Your task to perform on an android device: show emergency info Image 0: 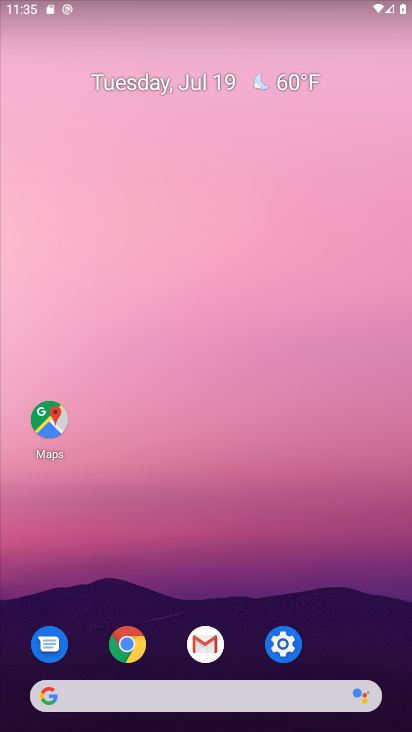
Step 0: click (274, 640)
Your task to perform on an android device: show emergency info Image 1: 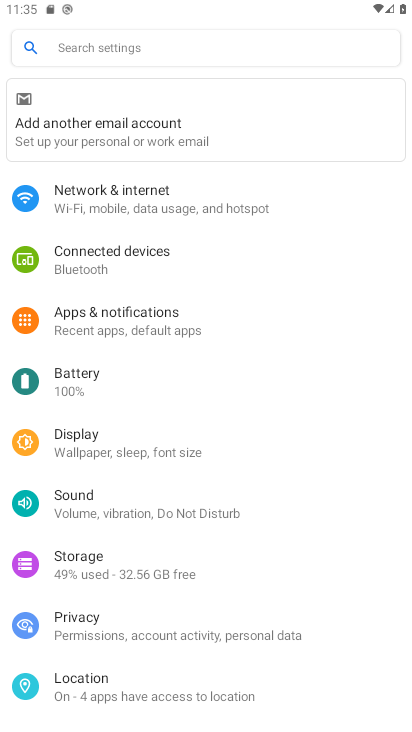
Step 1: click (66, 45)
Your task to perform on an android device: show emergency info Image 2: 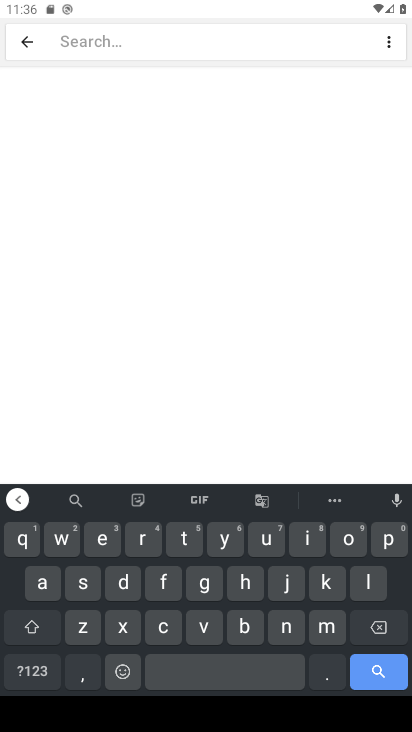
Step 2: click (100, 541)
Your task to perform on an android device: show emergency info Image 3: 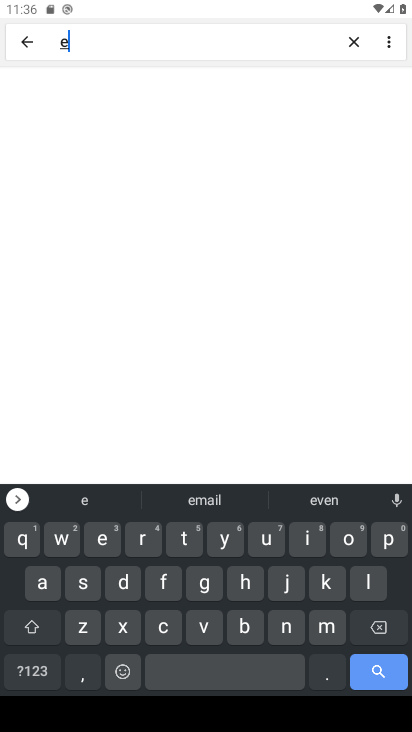
Step 3: click (323, 626)
Your task to perform on an android device: show emergency info Image 4: 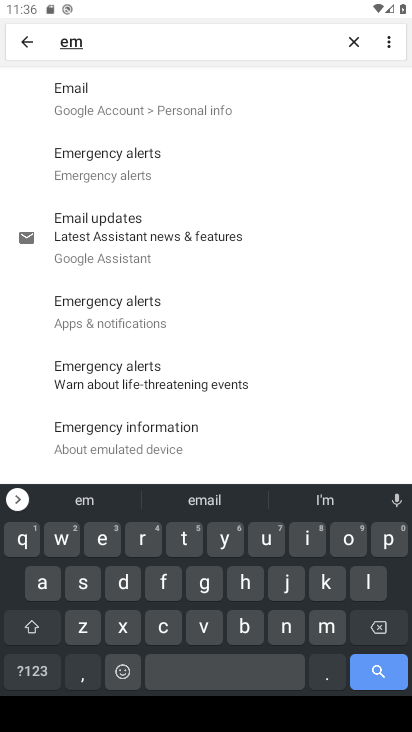
Step 4: click (106, 541)
Your task to perform on an android device: show emergency info Image 5: 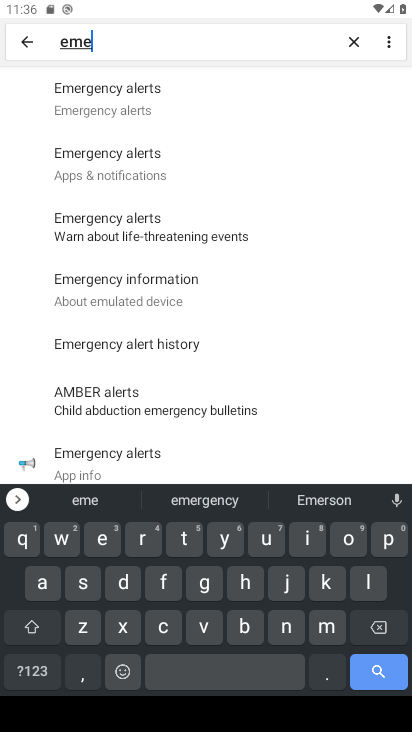
Step 5: click (197, 504)
Your task to perform on an android device: show emergency info Image 6: 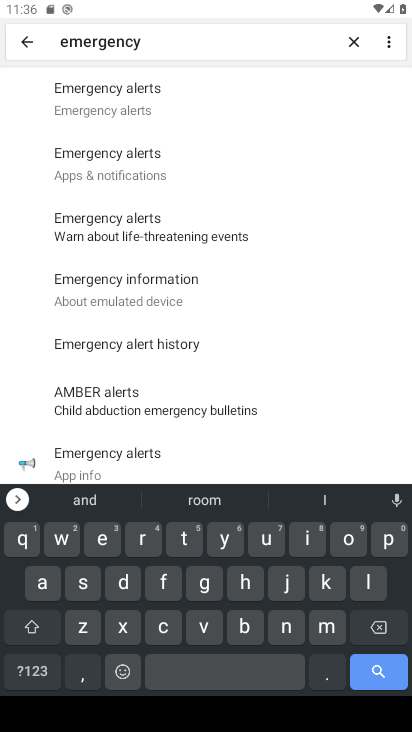
Step 6: click (306, 541)
Your task to perform on an android device: show emergency info Image 7: 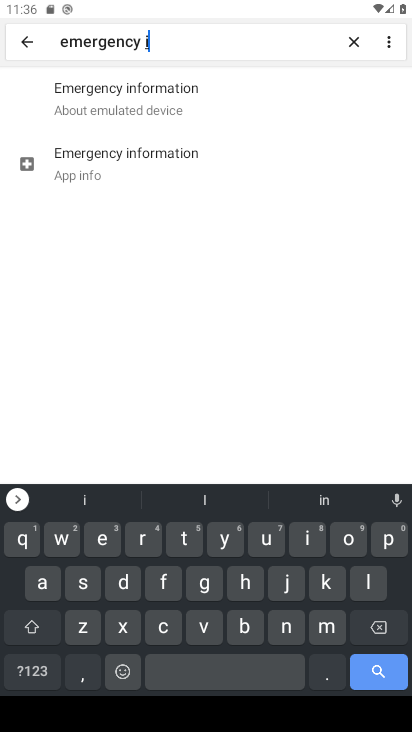
Step 7: click (119, 110)
Your task to perform on an android device: show emergency info Image 8: 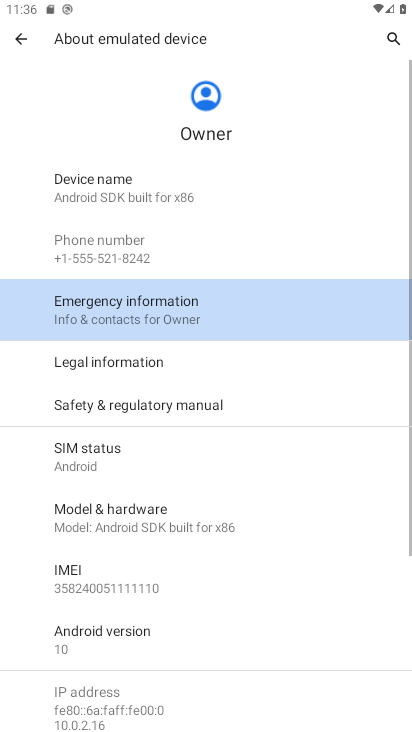
Step 8: click (97, 311)
Your task to perform on an android device: show emergency info Image 9: 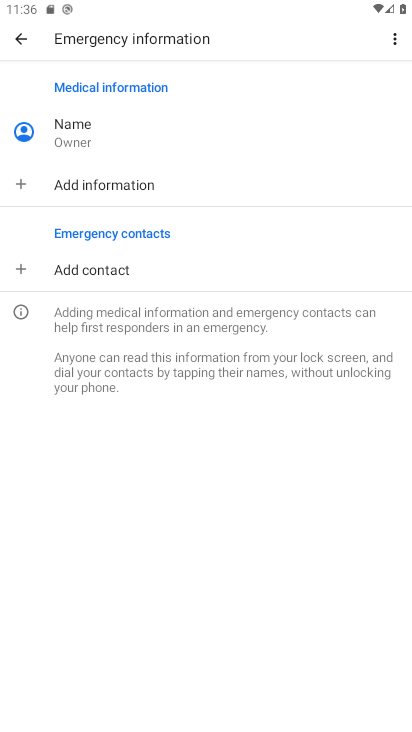
Step 9: task complete